Your task to perform on an android device: Go to eBay Image 0: 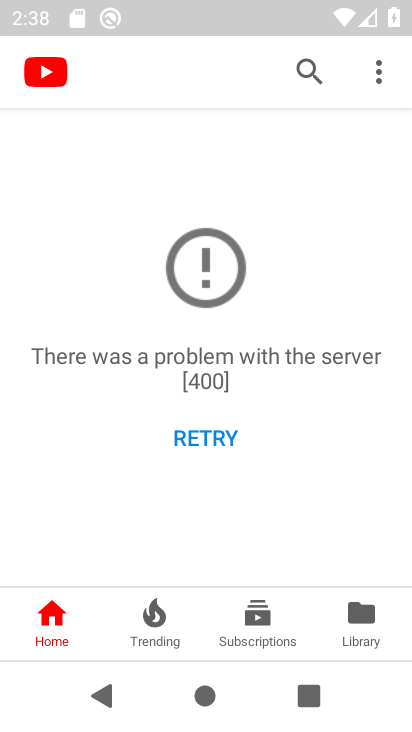
Step 0: press back button
Your task to perform on an android device: Go to eBay Image 1: 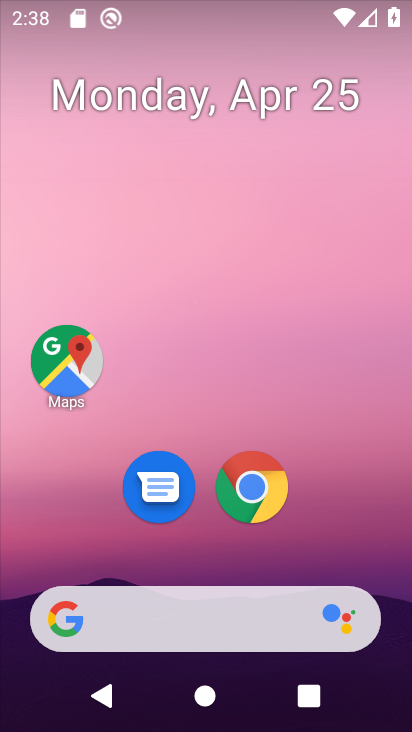
Step 1: click (252, 503)
Your task to perform on an android device: Go to eBay Image 2: 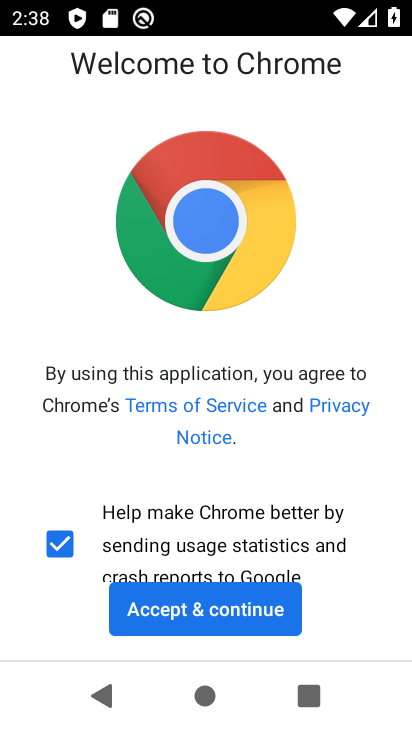
Step 2: click (218, 613)
Your task to perform on an android device: Go to eBay Image 3: 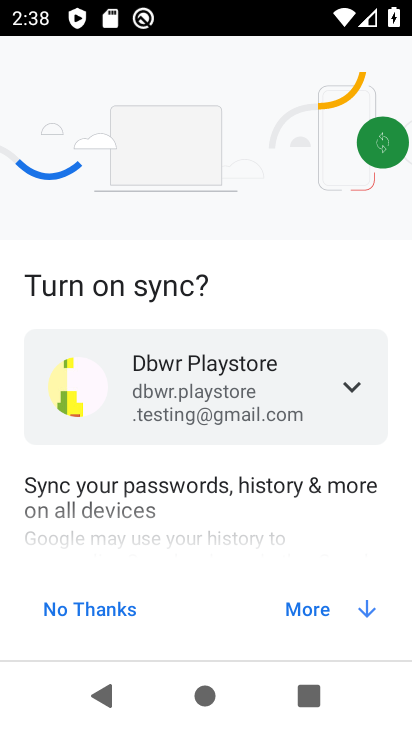
Step 3: click (333, 621)
Your task to perform on an android device: Go to eBay Image 4: 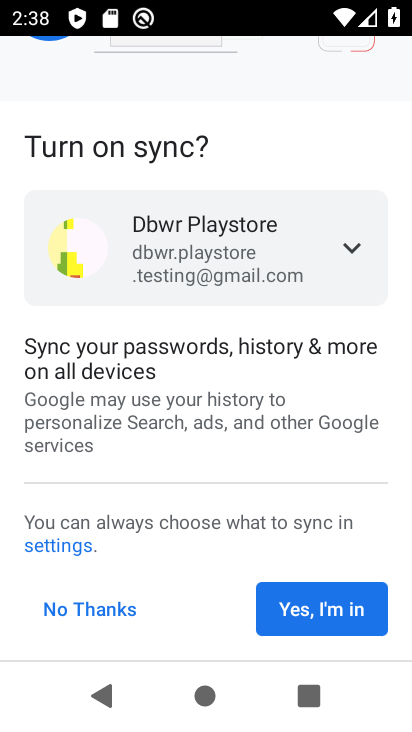
Step 4: click (333, 621)
Your task to perform on an android device: Go to eBay Image 5: 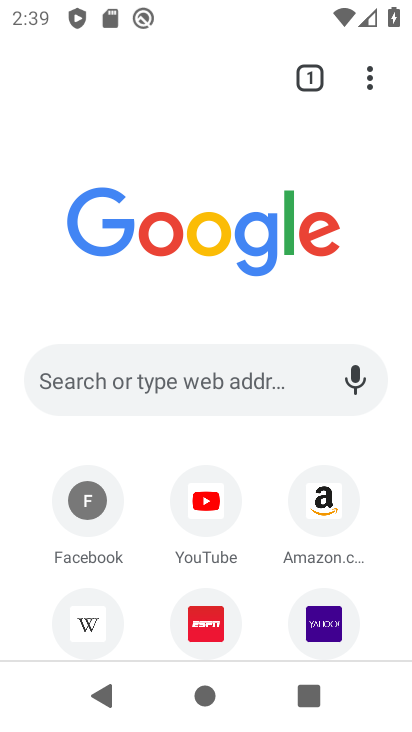
Step 5: click (184, 404)
Your task to perform on an android device: Go to eBay Image 6: 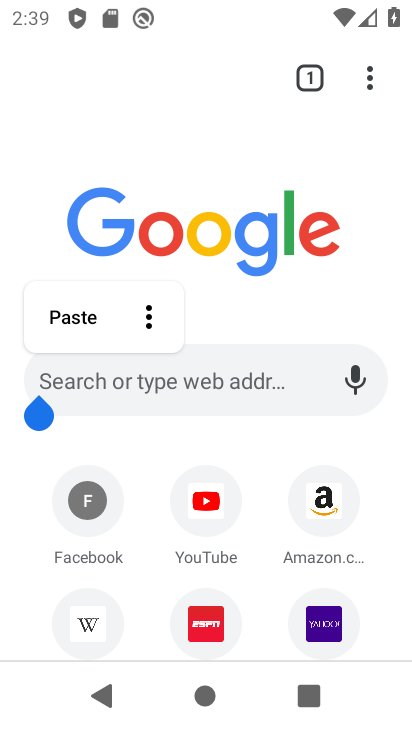
Step 6: click (163, 373)
Your task to perform on an android device: Go to eBay Image 7: 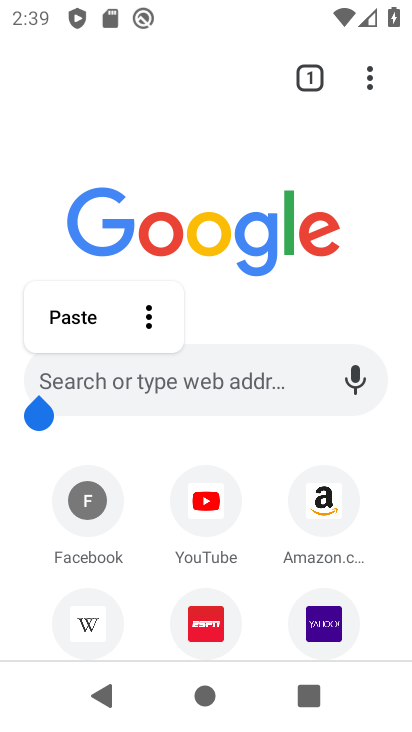
Step 7: click (286, 391)
Your task to perform on an android device: Go to eBay Image 8: 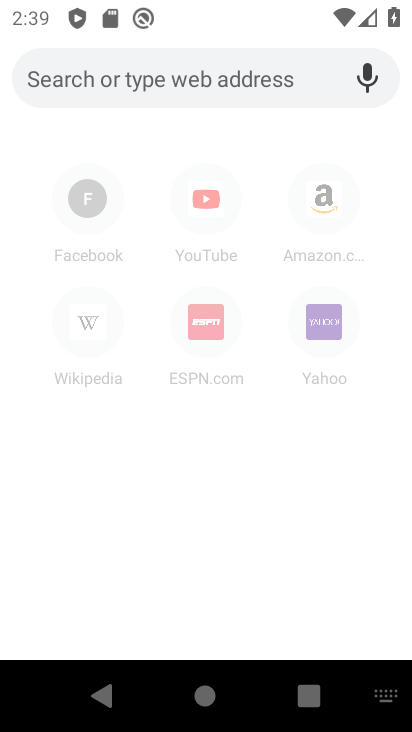
Step 8: type "ebay"
Your task to perform on an android device: Go to eBay Image 9: 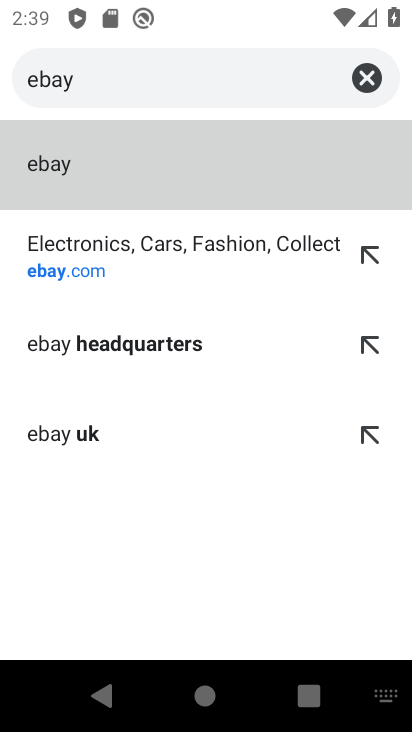
Step 9: click (84, 281)
Your task to perform on an android device: Go to eBay Image 10: 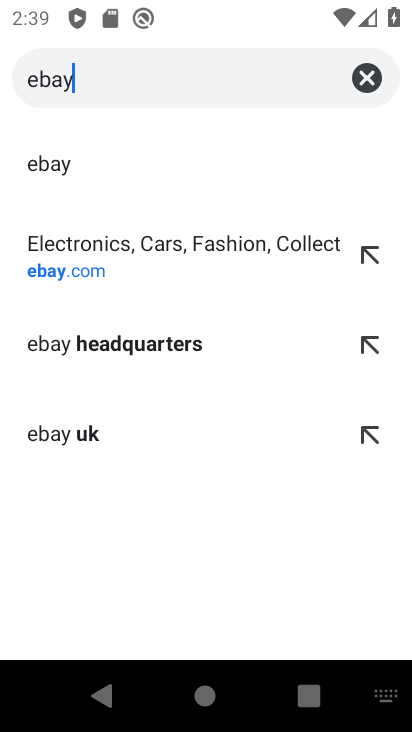
Step 10: click (109, 270)
Your task to perform on an android device: Go to eBay Image 11: 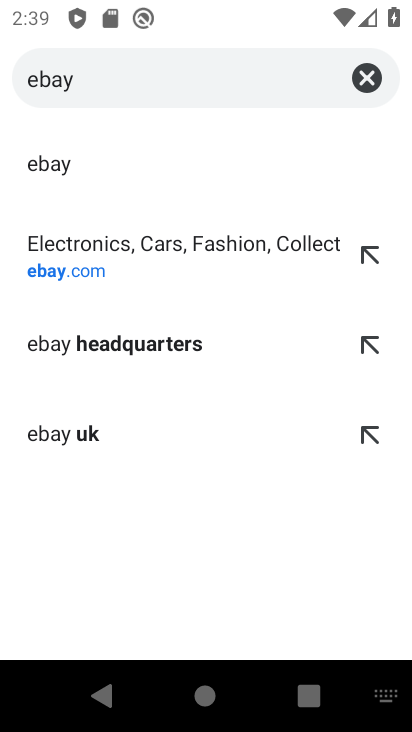
Step 11: click (109, 270)
Your task to perform on an android device: Go to eBay Image 12: 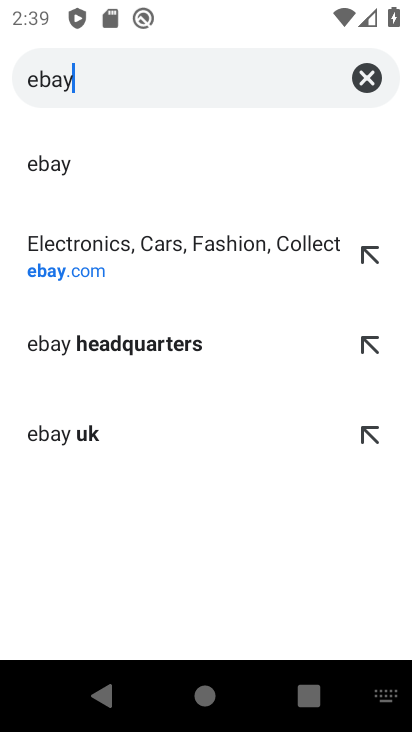
Step 12: click (165, 265)
Your task to perform on an android device: Go to eBay Image 13: 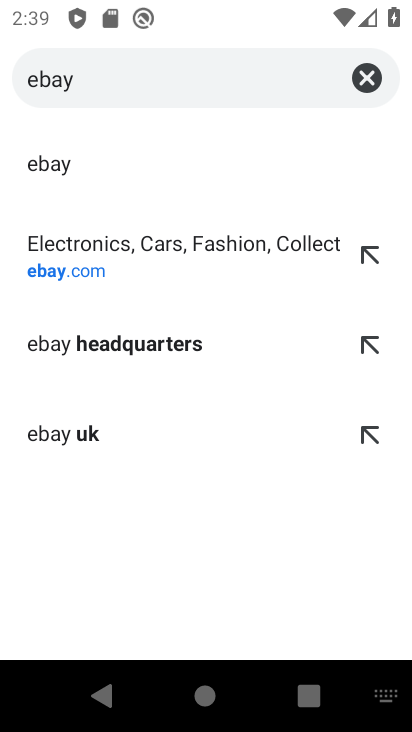
Step 13: click (164, 265)
Your task to perform on an android device: Go to eBay Image 14: 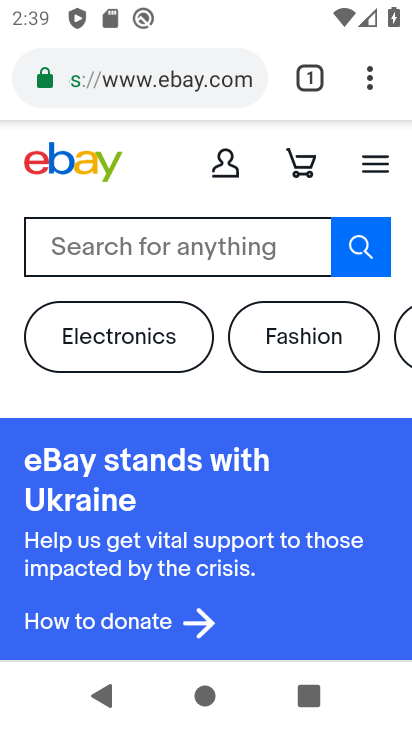
Step 14: drag from (254, 614) to (371, 114)
Your task to perform on an android device: Go to eBay Image 15: 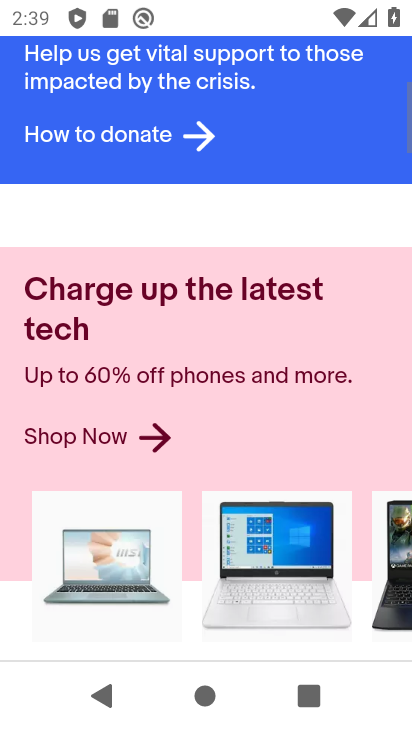
Step 15: drag from (233, 542) to (325, 109)
Your task to perform on an android device: Go to eBay Image 16: 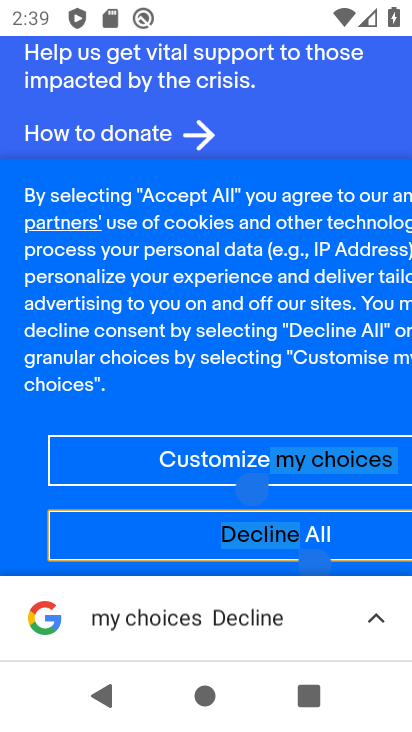
Step 16: drag from (164, 434) to (193, 277)
Your task to perform on an android device: Go to eBay Image 17: 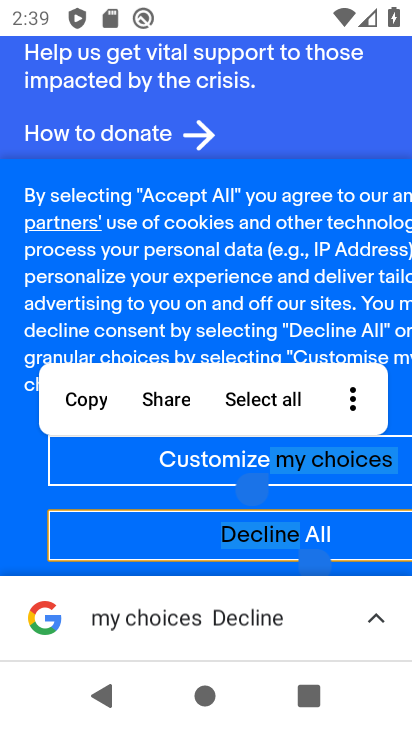
Step 17: click (372, 613)
Your task to perform on an android device: Go to eBay Image 18: 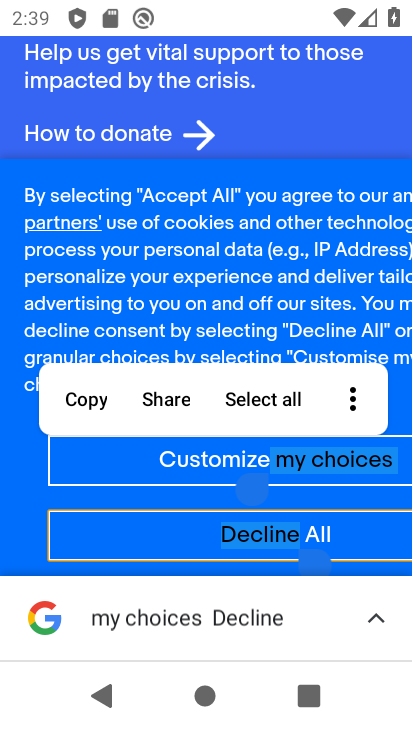
Step 18: drag from (326, 515) to (404, 561)
Your task to perform on an android device: Go to eBay Image 19: 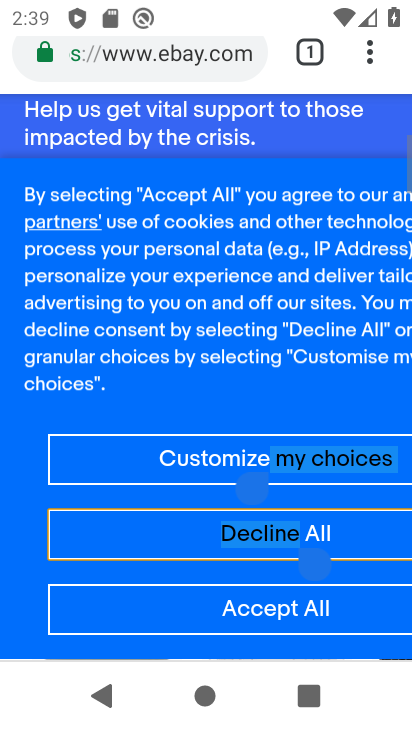
Step 19: click (261, 620)
Your task to perform on an android device: Go to eBay Image 20: 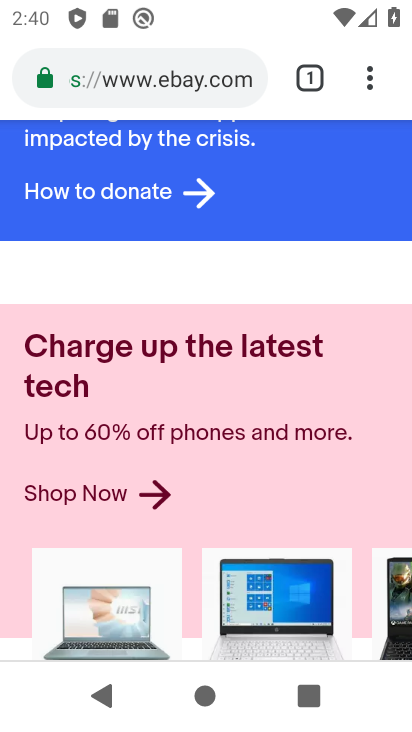
Step 20: task complete